Your task to perform on an android device: Toggle the flashlight Image 0: 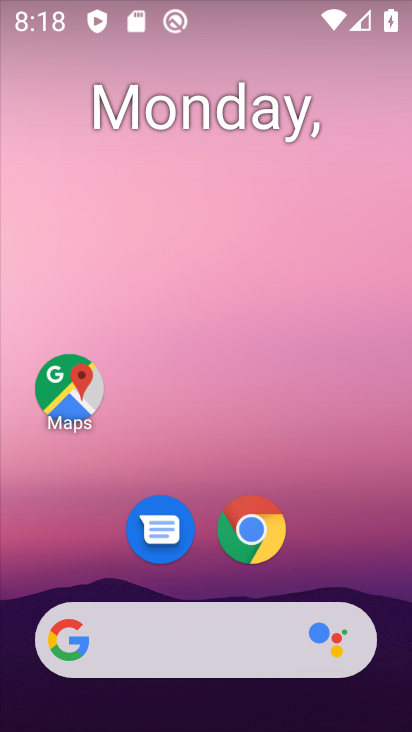
Step 0: drag from (30, 607) to (260, 154)
Your task to perform on an android device: Toggle the flashlight Image 1: 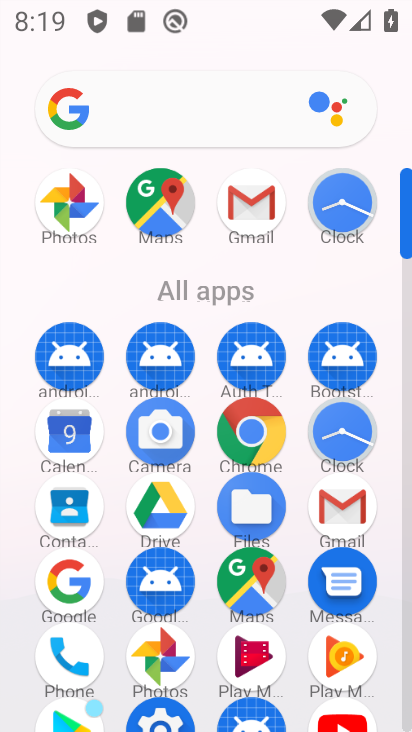
Step 1: click (160, 724)
Your task to perform on an android device: Toggle the flashlight Image 2: 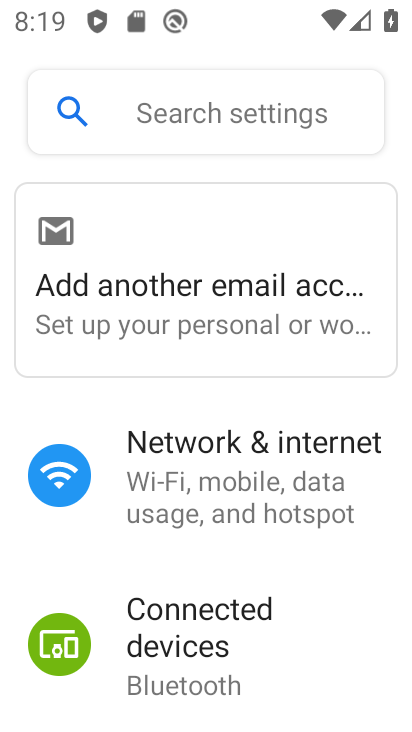
Step 2: task complete